Your task to perform on an android device: turn off location Image 0: 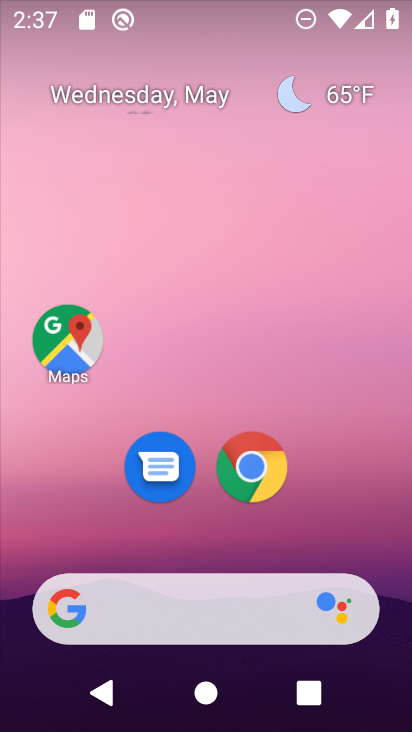
Step 0: drag from (187, 274) to (179, 241)
Your task to perform on an android device: turn off location Image 1: 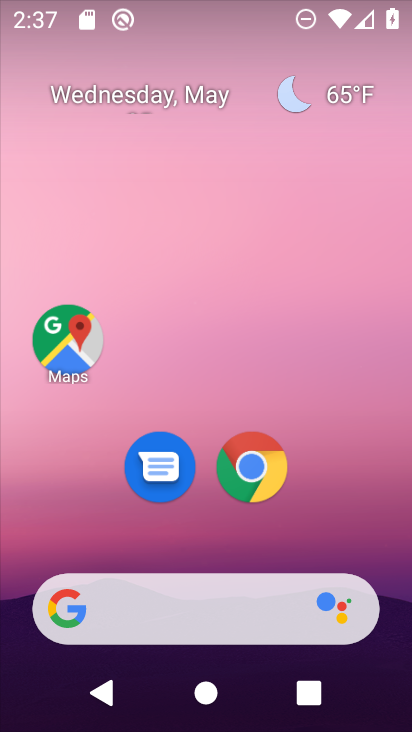
Step 1: click (253, 465)
Your task to perform on an android device: turn off location Image 2: 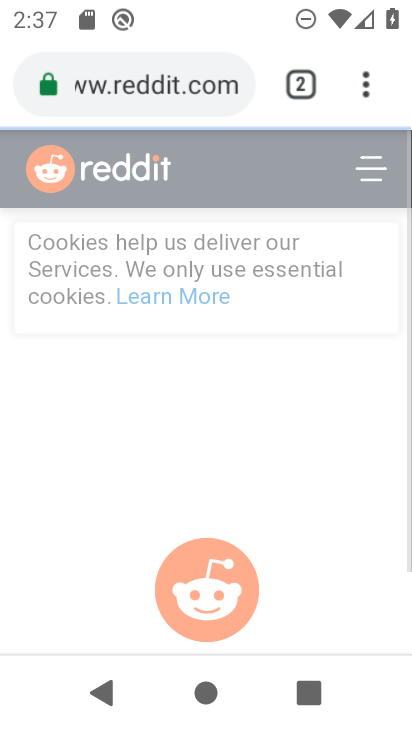
Step 2: press home button
Your task to perform on an android device: turn off location Image 3: 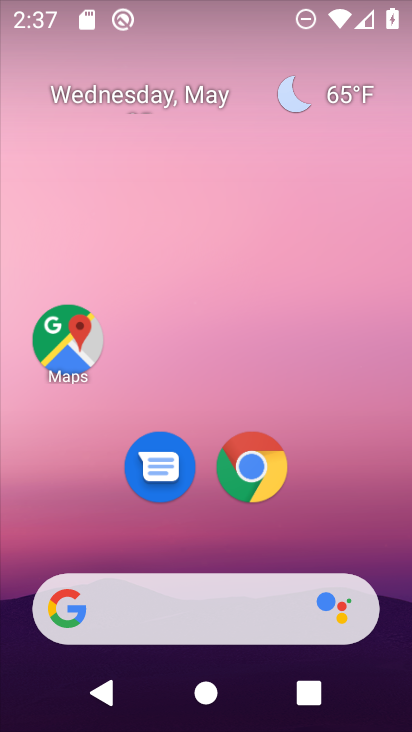
Step 3: drag from (162, 562) to (164, 166)
Your task to perform on an android device: turn off location Image 4: 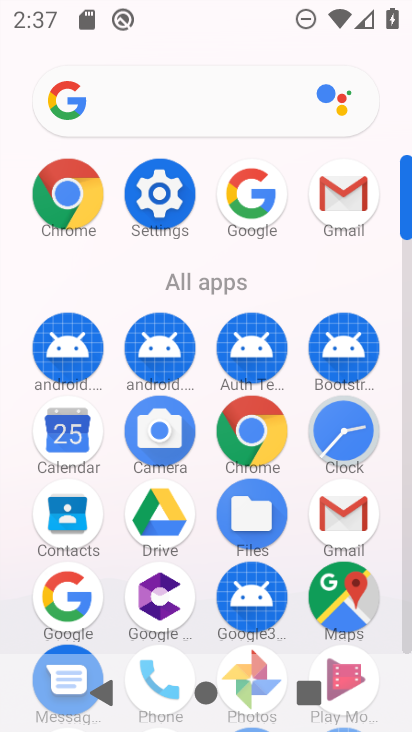
Step 4: click (134, 186)
Your task to perform on an android device: turn off location Image 5: 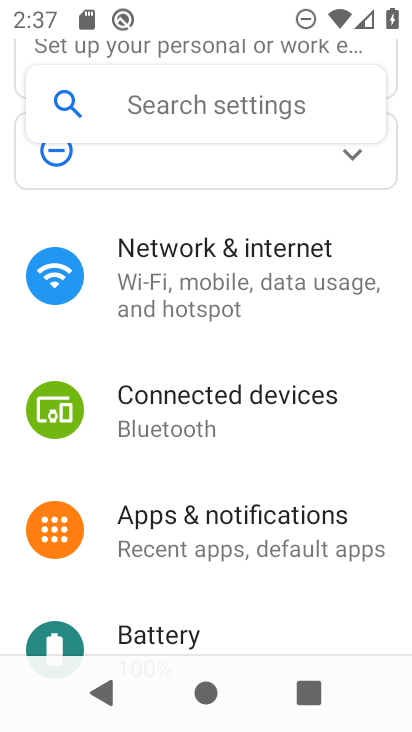
Step 5: drag from (213, 601) to (207, 204)
Your task to perform on an android device: turn off location Image 6: 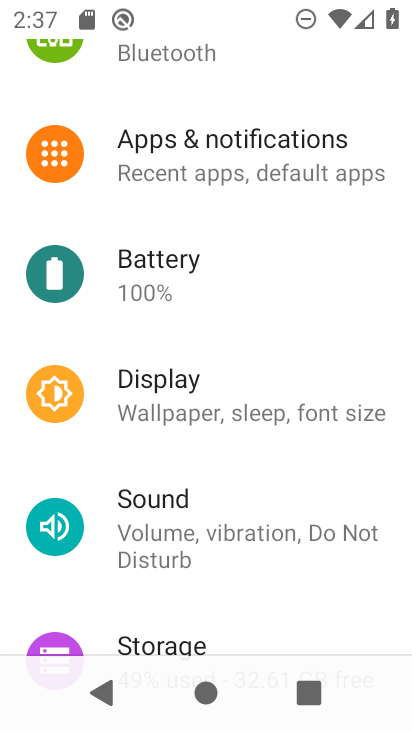
Step 6: drag from (190, 598) to (195, 267)
Your task to perform on an android device: turn off location Image 7: 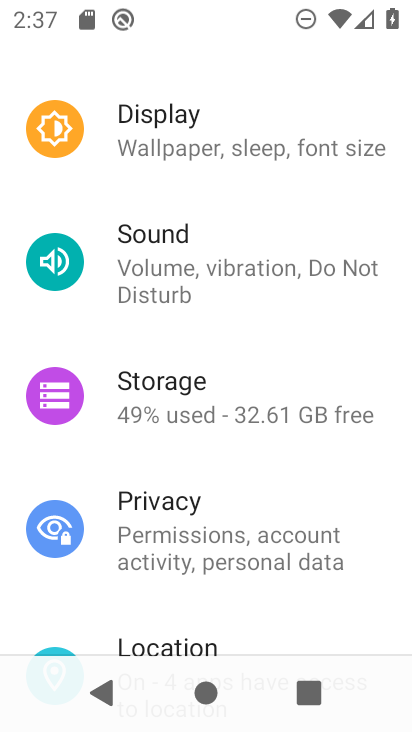
Step 7: drag from (217, 541) to (192, 294)
Your task to perform on an android device: turn off location Image 8: 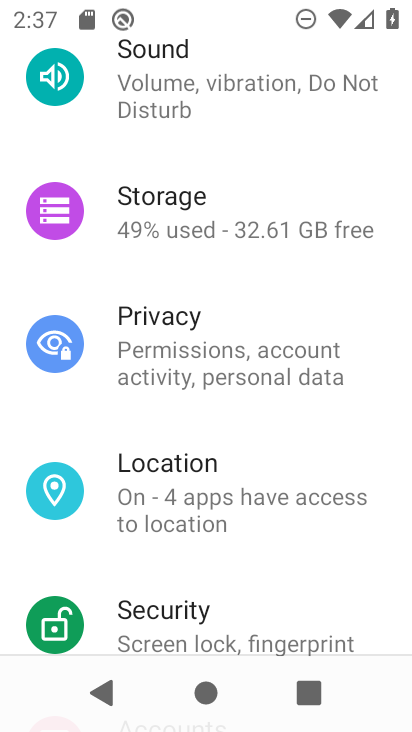
Step 8: click (177, 467)
Your task to perform on an android device: turn off location Image 9: 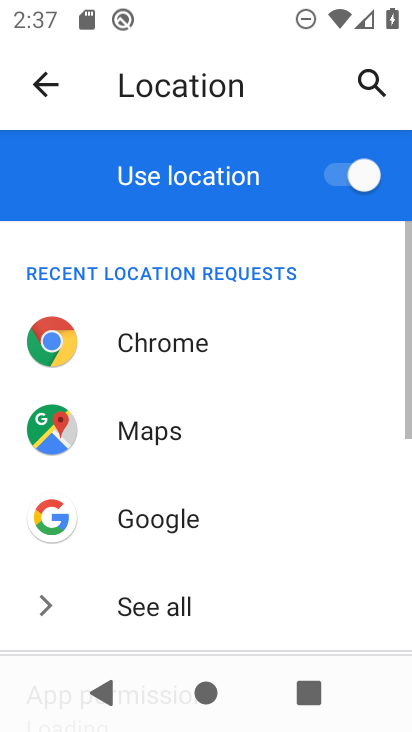
Step 9: drag from (196, 587) to (209, 243)
Your task to perform on an android device: turn off location Image 10: 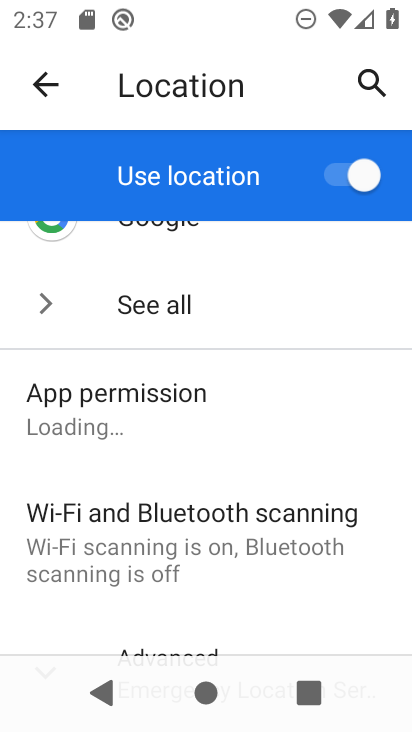
Step 10: drag from (202, 605) to (194, 326)
Your task to perform on an android device: turn off location Image 11: 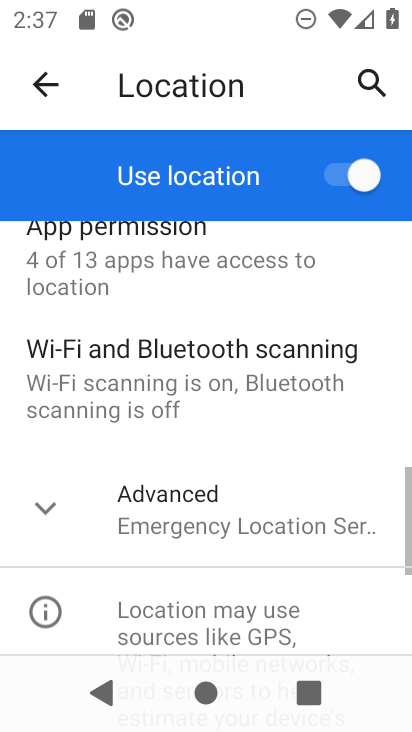
Step 11: click (326, 176)
Your task to perform on an android device: turn off location Image 12: 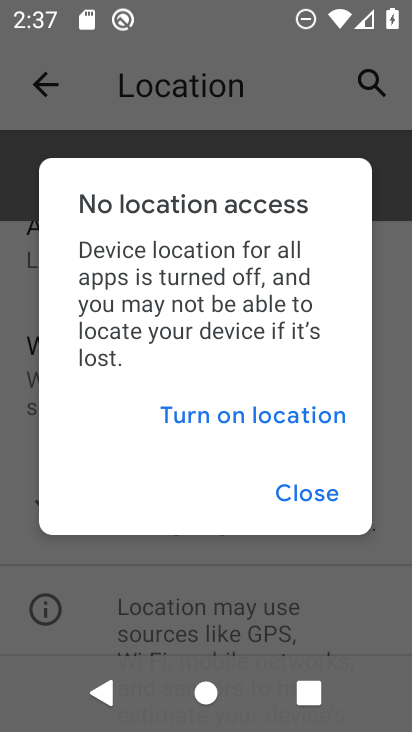
Step 12: click (297, 496)
Your task to perform on an android device: turn off location Image 13: 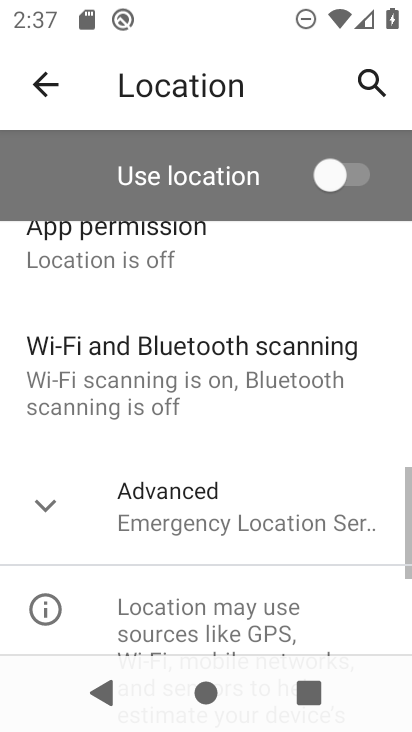
Step 13: task complete